Your task to perform on an android device: turn off priority inbox in the gmail app Image 0: 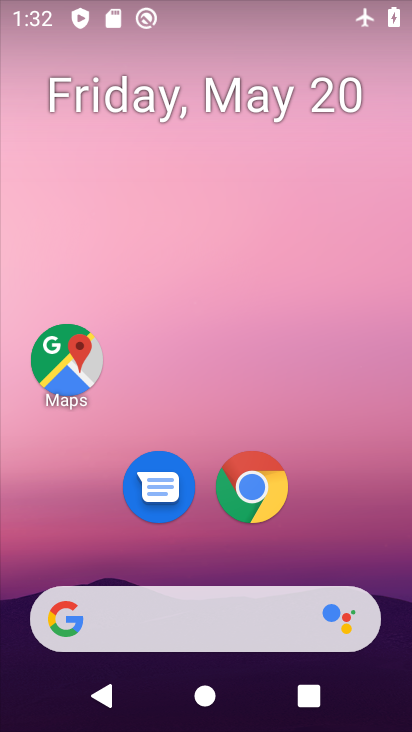
Step 0: drag from (366, 533) to (294, 67)
Your task to perform on an android device: turn off priority inbox in the gmail app Image 1: 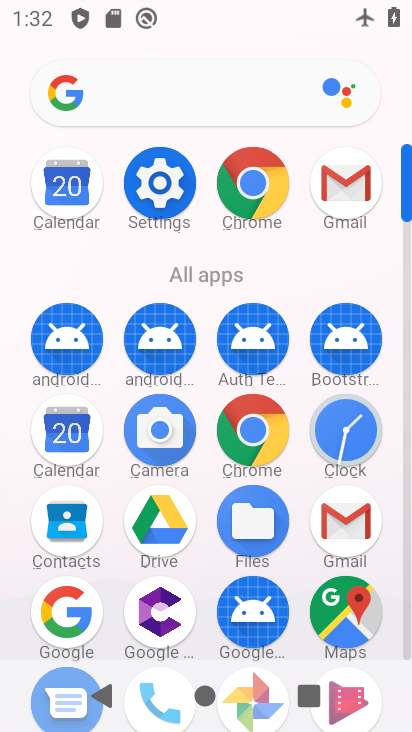
Step 1: click (362, 192)
Your task to perform on an android device: turn off priority inbox in the gmail app Image 2: 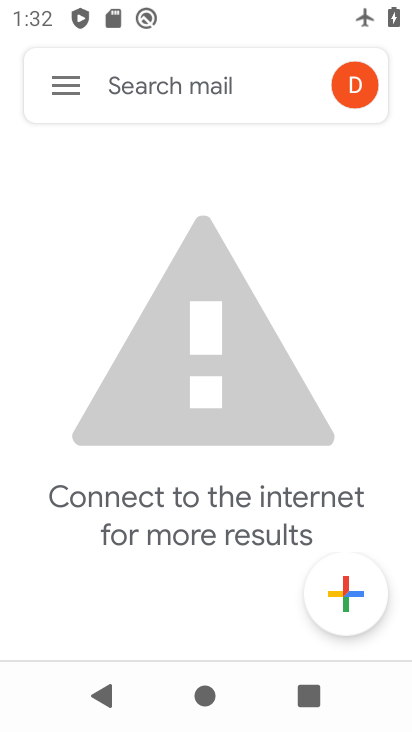
Step 2: task complete